Your task to perform on an android device: Open calendar and show me the first week of next month Image 0: 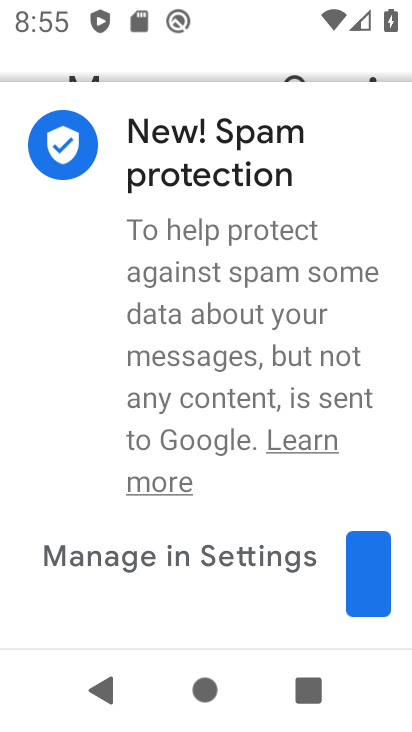
Step 0: press home button
Your task to perform on an android device: Open calendar and show me the first week of next month Image 1: 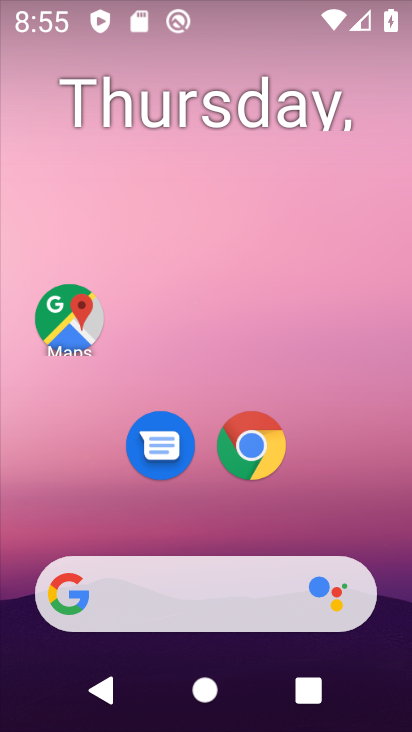
Step 1: drag from (0, 554) to (230, 158)
Your task to perform on an android device: Open calendar and show me the first week of next month Image 2: 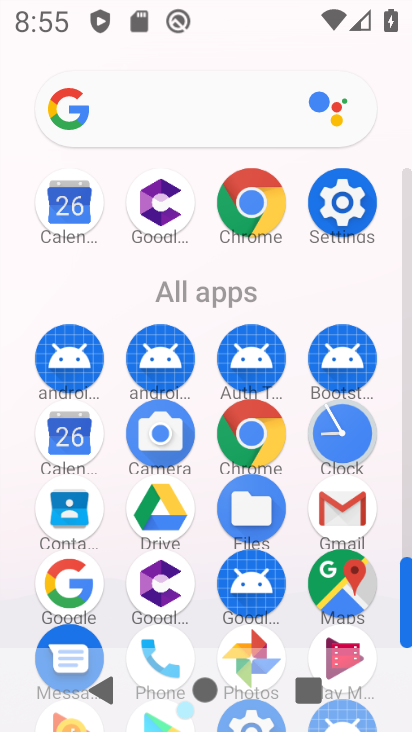
Step 2: click (67, 448)
Your task to perform on an android device: Open calendar and show me the first week of next month Image 3: 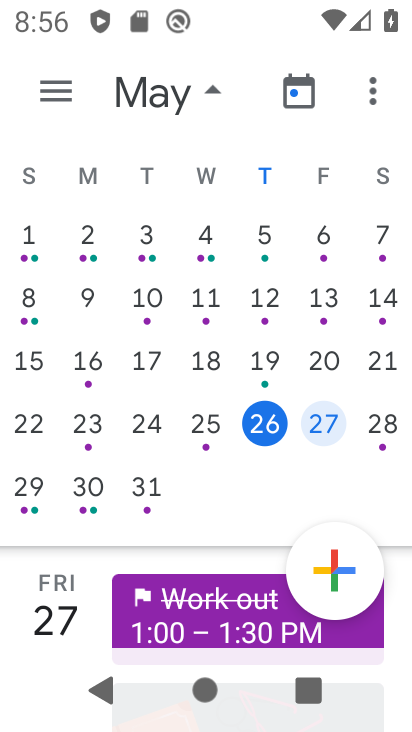
Step 3: drag from (385, 289) to (14, 434)
Your task to perform on an android device: Open calendar and show me the first week of next month Image 4: 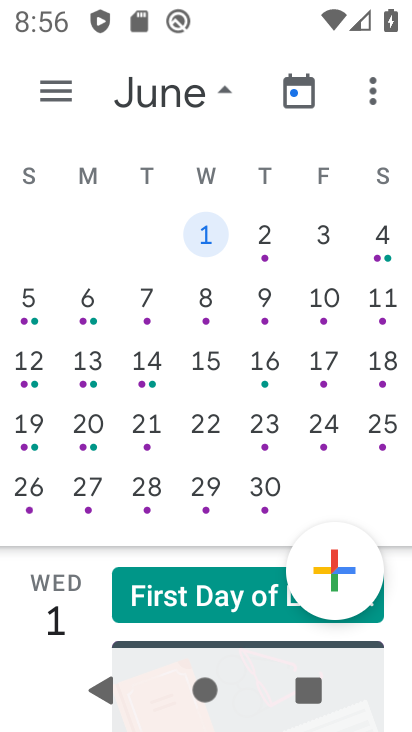
Step 4: click (261, 244)
Your task to perform on an android device: Open calendar and show me the first week of next month Image 5: 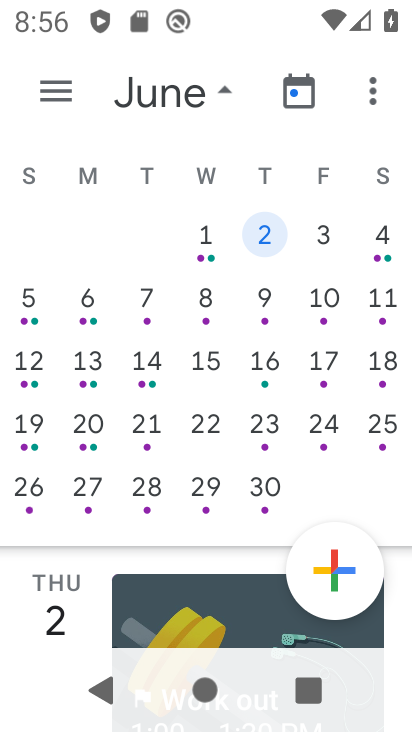
Step 5: click (311, 232)
Your task to perform on an android device: Open calendar and show me the first week of next month Image 6: 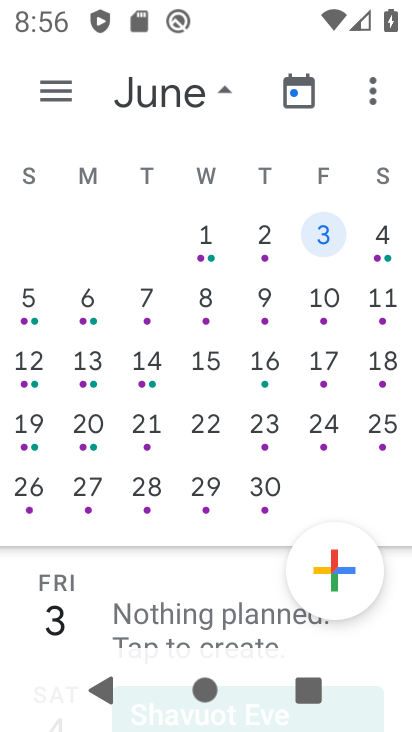
Step 6: click (379, 233)
Your task to perform on an android device: Open calendar and show me the first week of next month Image 7: 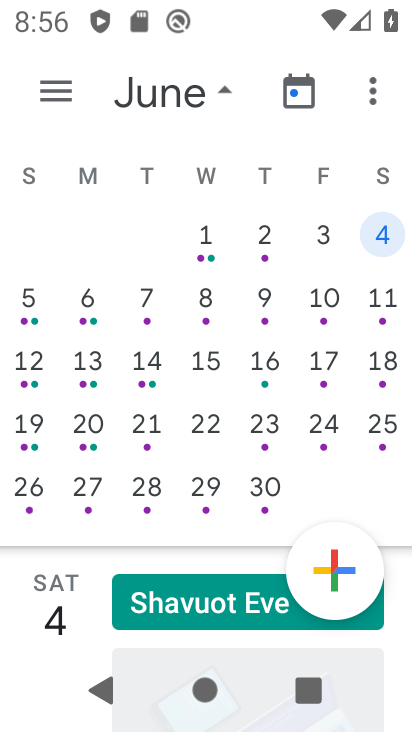
Step 7: task complete